Your task to perform on an android device: Open settings on Google Maps Image 0: 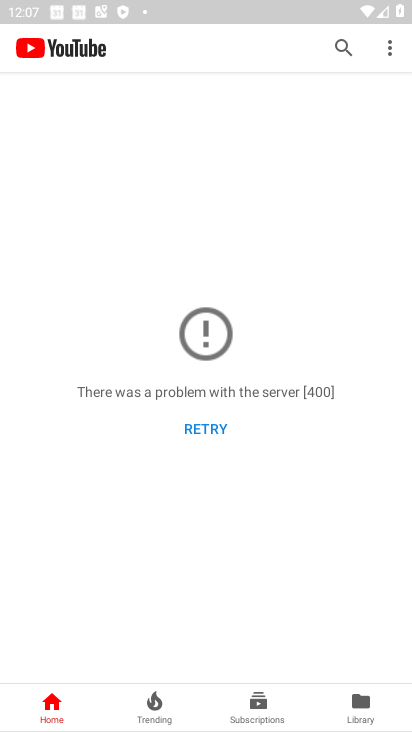
Step 0: press home button
Your task to perform on an android device: Open settings on Google Maps Image 1: 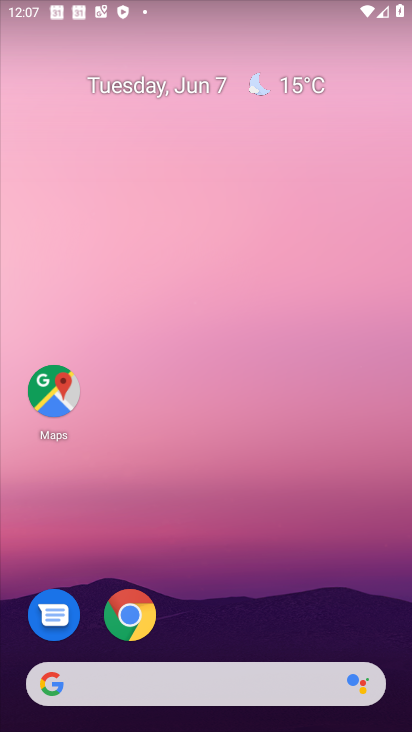
Step 1: drag from (200, 646) to (162, 185)
Your task to perform on an android device: Open settings on Google Maps Image 2: 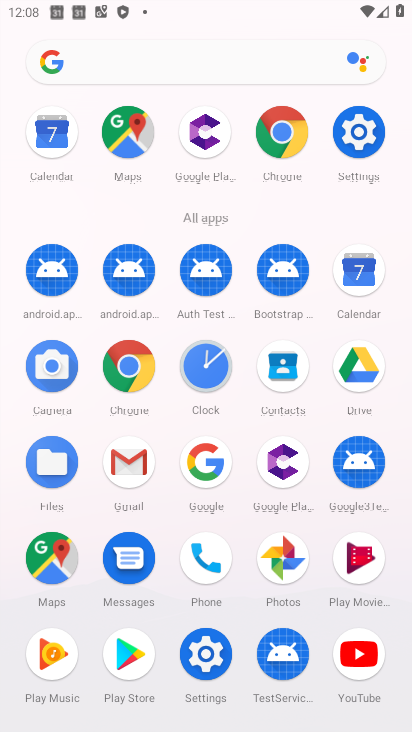
Step 2: click (359, 142)
Your task to perform on an android device: Open settings on Google Maps Image 3: 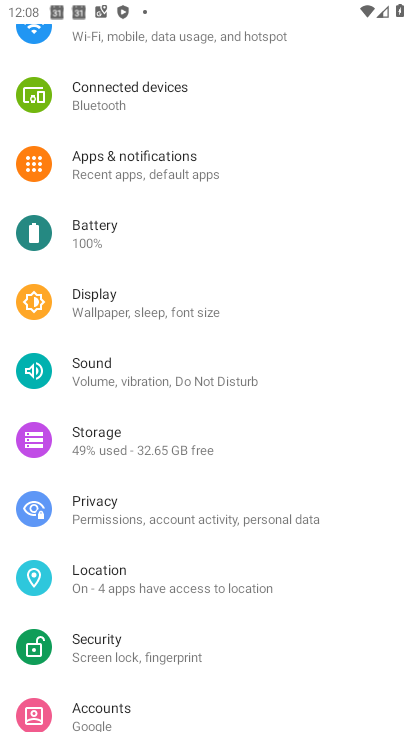
Step 3: drag from (162, 163) to (174, 660)
Your task to perform on an android device: Open settings on Google Maps Image 4: 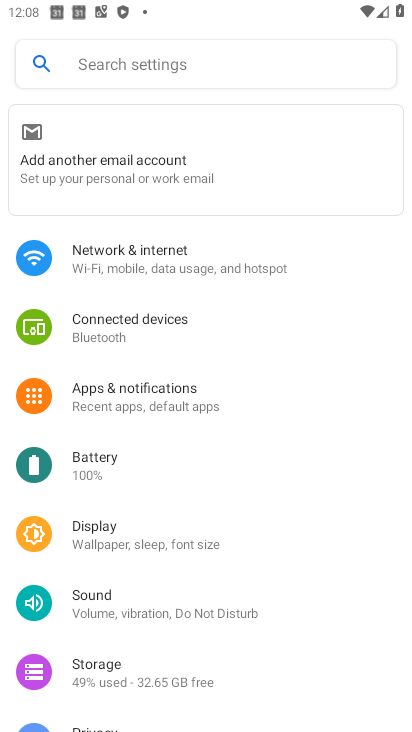
Step 4: press back button
Your task to perform on an android device: Open settings on Google Maps Image 5: 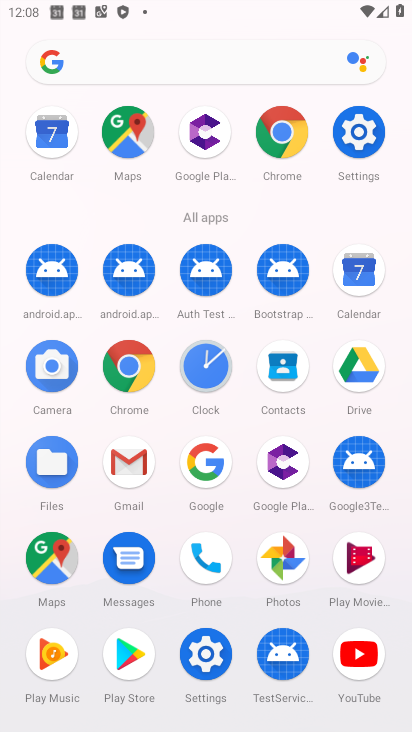
Step 5: click (48, 574)
Your task to perform on an android device: Open settings on Google Maps Image 6: 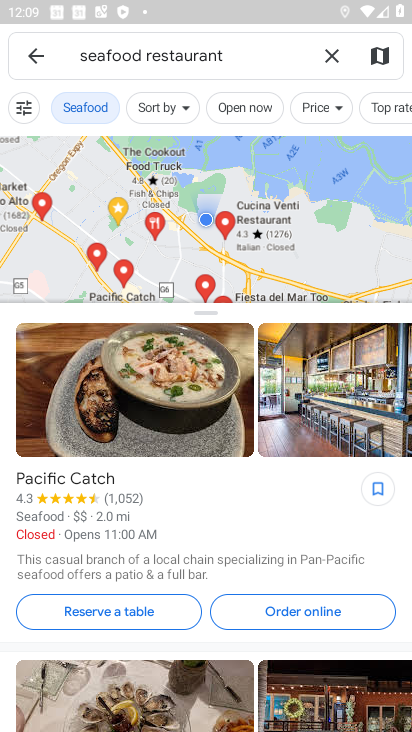
Step 6: click (20, 57)
Your task to perform on an android device: Open settings on Google Maps Image 7: 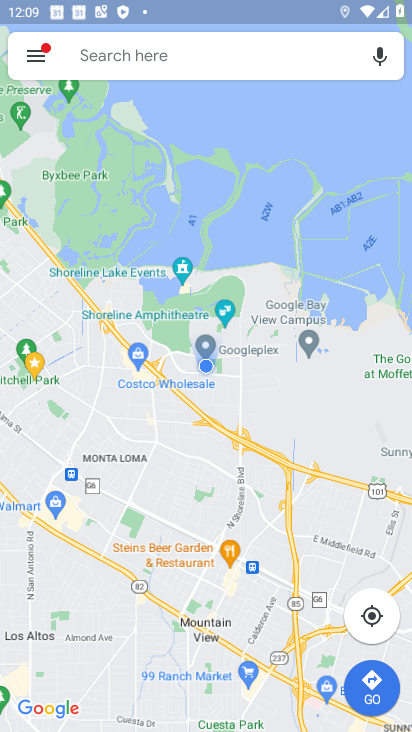
Step 7: click (31, 62)
Your task to perform on an android device: Open settings on Google Maps Image 8: 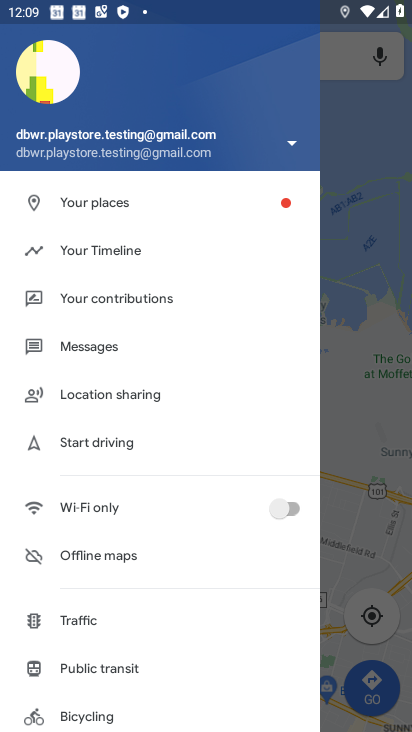
Step 8: drag from (125, 600) to (117, 152)
Your task to perform on an android device: Open settings on Google Maps Image 9: 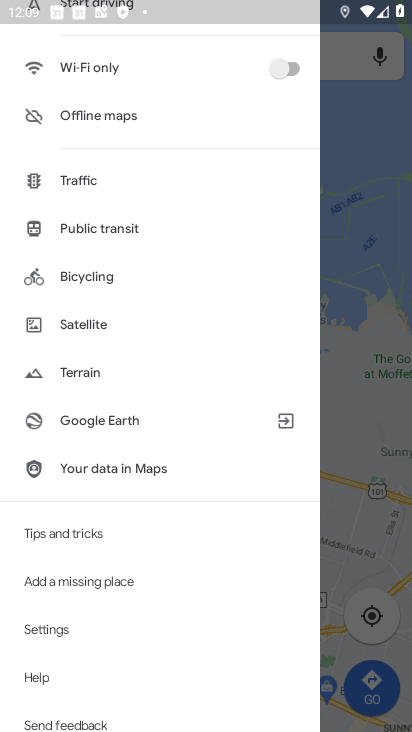
Step 9: click (68, 636)
Your task to perform on an android device: Open settings on Google Maps Image 10: 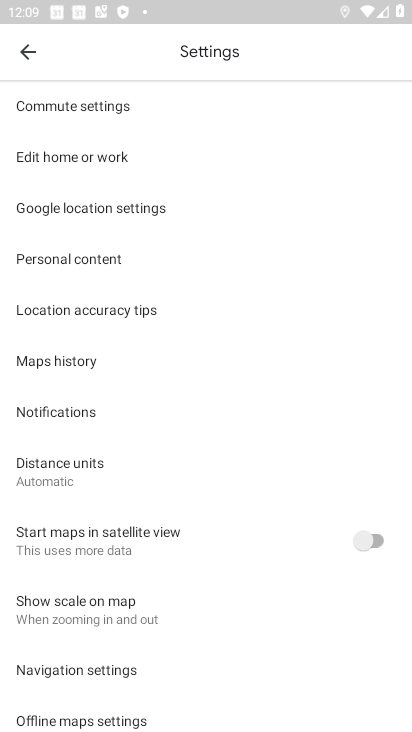
Step 10: task complete